Your task to perform on an android device: Go to wifi settings Image 0: 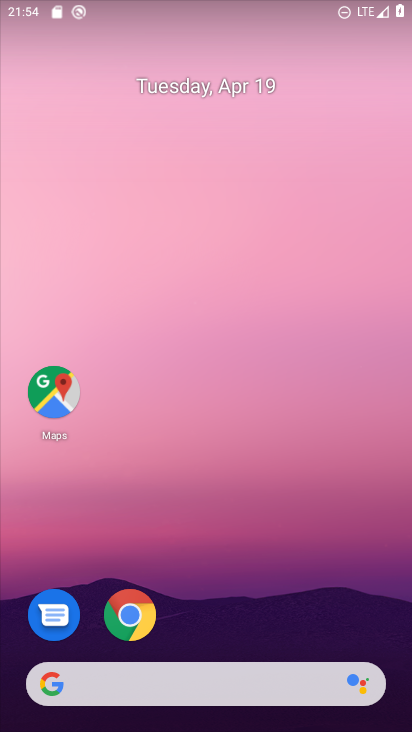
Step 0: drag from (199, 258) to (198, 565)
Your task to perform on an android device: Go to wifi settings Image 1: 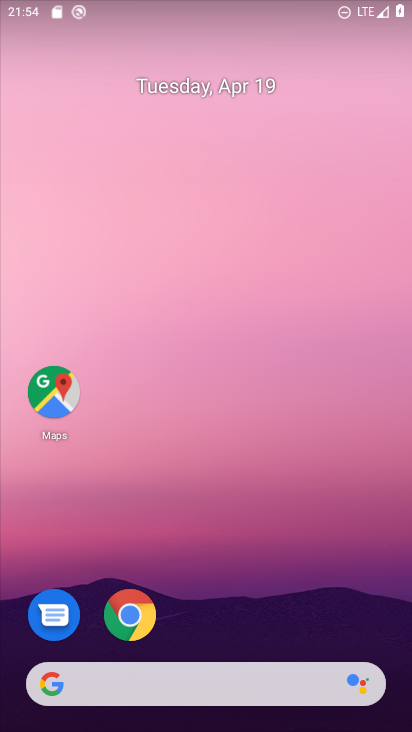
Step 1: drag from (140, 11) to (253, 598)
Your task to perform on an android device: Go to wifi settings Image 2: 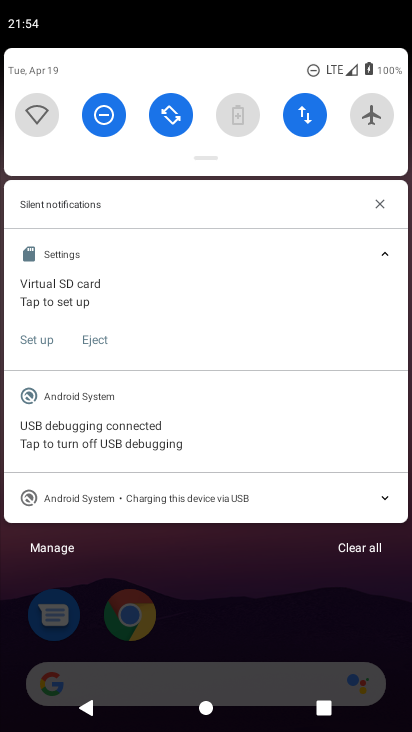
Step 2: click (37, 133)
Your task to perform on an android device: Go to wifi settings Image 3: 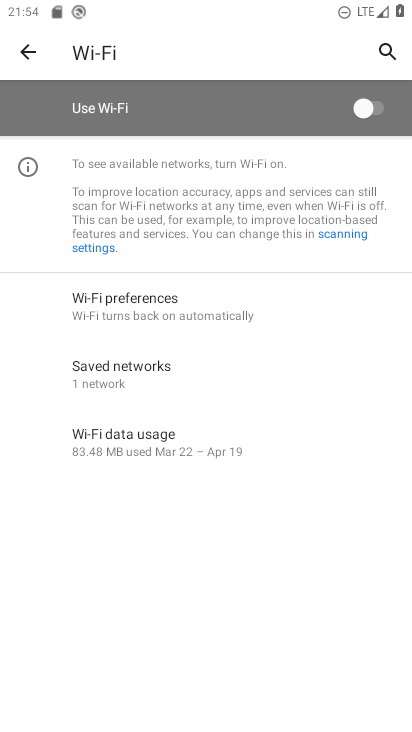
Step 3: task complete